Your task to perform on an android device: Open accessibility settings Image 0: 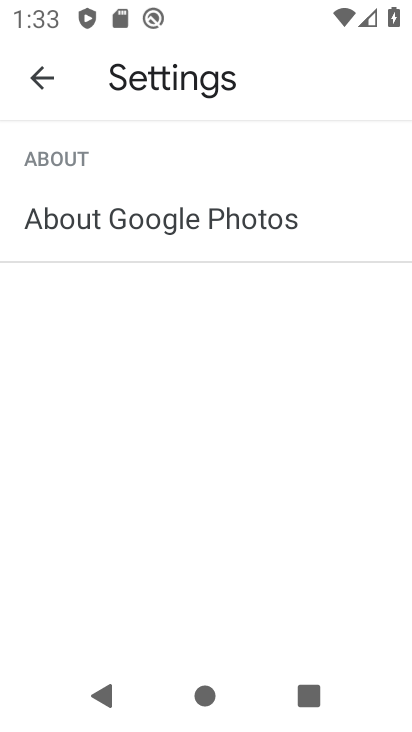
Step 0: press home button
Your task to perform on an android device: Open accessibility settings Image 1: 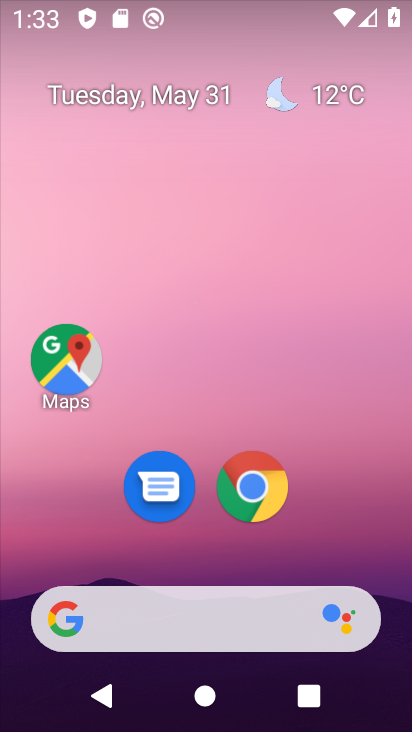
Step 1: drag from (236, 570) to (1, 210)
Your task to perform on an android device: Open accessibility settings Image 2: 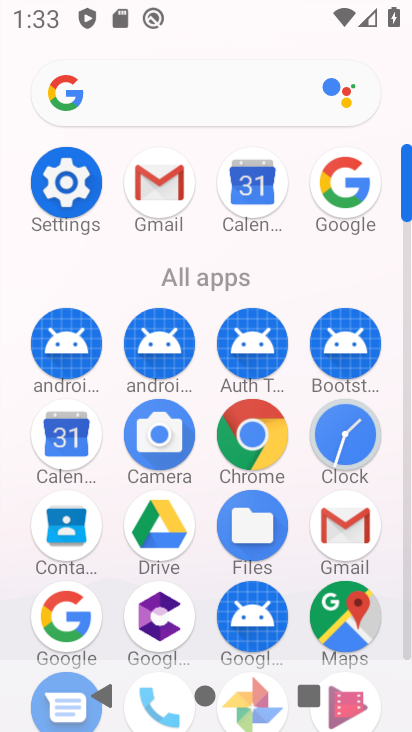
Step 2: click (56, 190)
Your task to perform on an android device: Open accessibility settings Image 3: 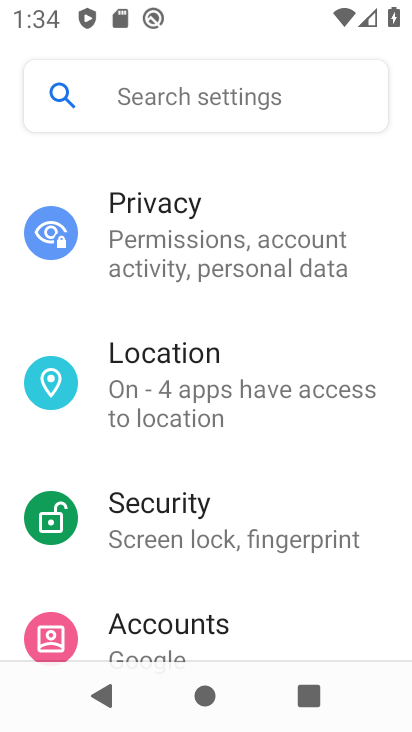
Step 3: drag from (223, 605) to (262, 246)
Your task to perform on an android device: Open accessibility settings Image 4: 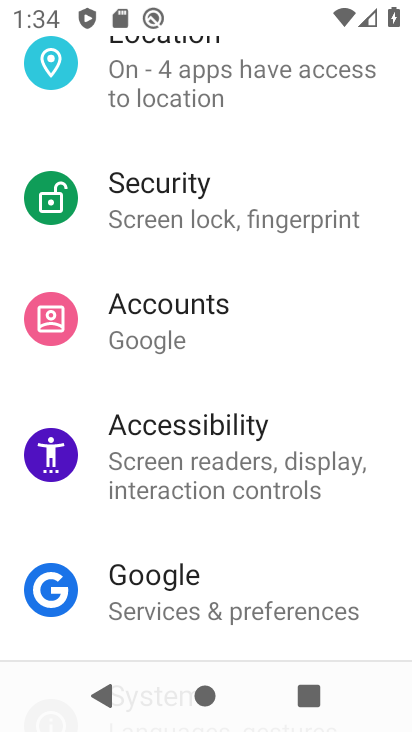
Step 4: click (187, 468)
Your task to perform on an android device: Open accessibility settings Image 5: 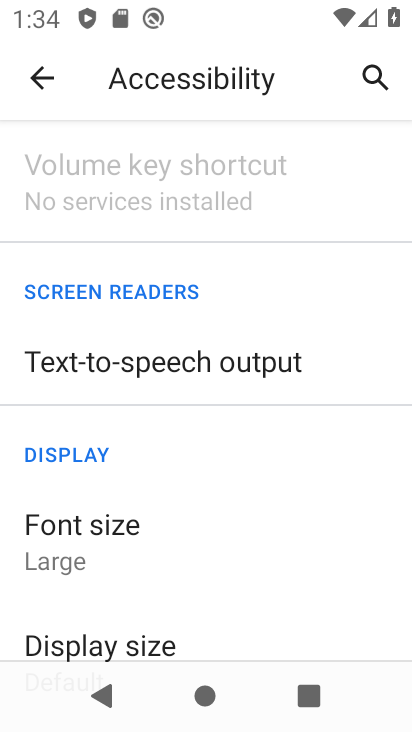
Step 5: task complete